Your task to perform on an android device: Open Chrome and go to settings Image 0: 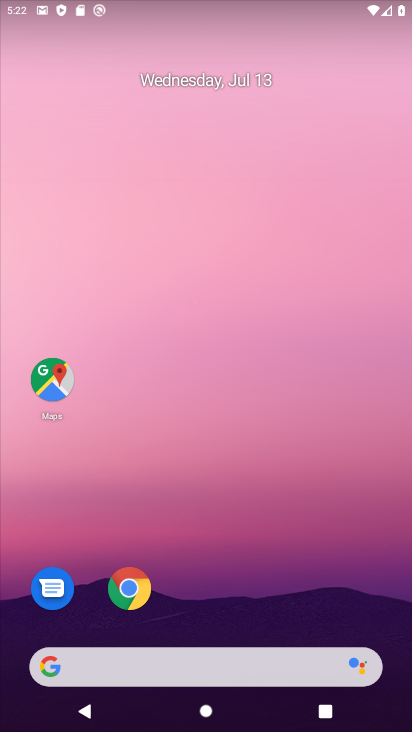
Step 0: click (129, 588)
Your task to perform on an android device: Open Chrome and go to settings Image 1: 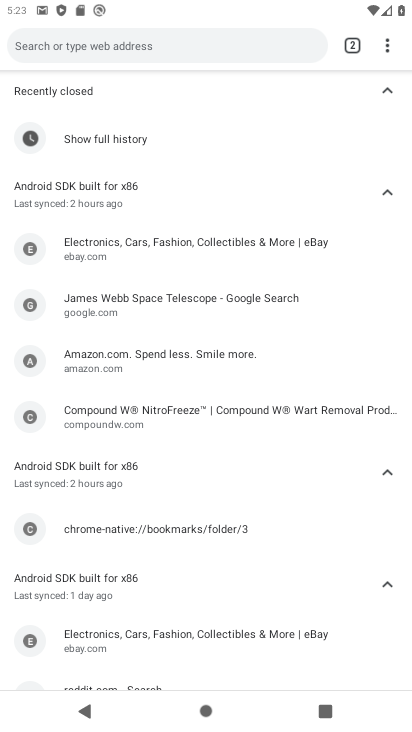
Step 1: click (384, 45)
Your task to perform on an android device: Open Chrome and go to settings Image 2: 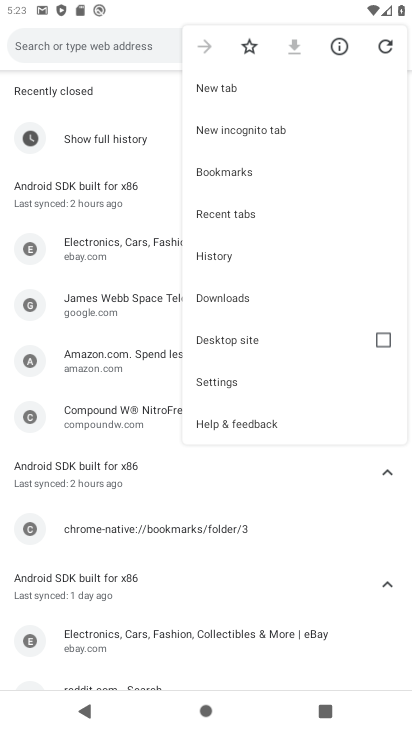
Step 2: click (213, 381)
Your task to perform on an android device: Open Chrome and go to settings Image 3: 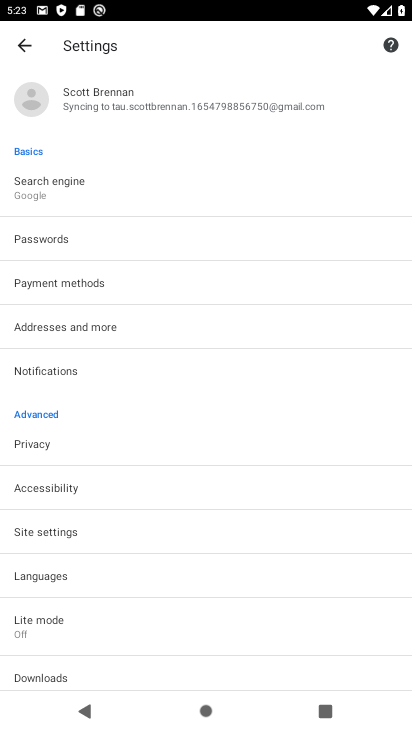
Step 3: task complete